Your task to perform on an android device: change the clock display to digital Image 0: 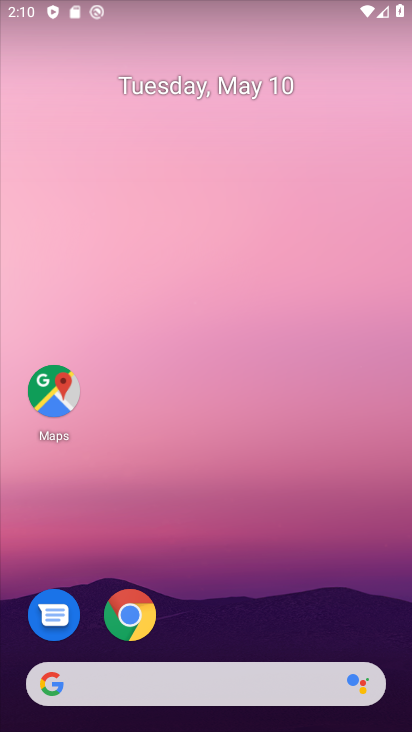
Step 0: click (357, 17)
Your task to perform on an android device: change the clock display to digital Image 1: 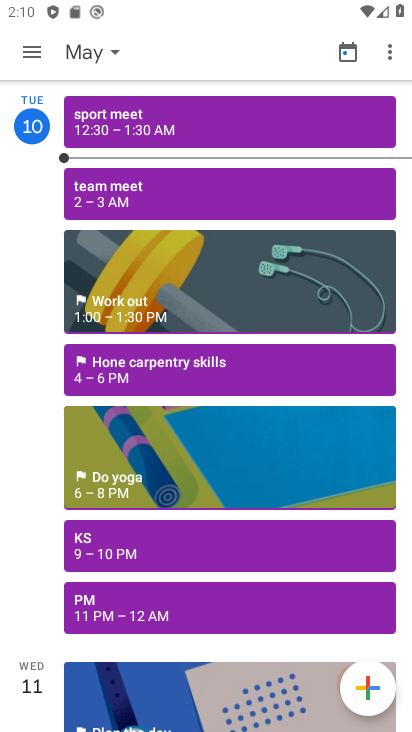
Step 1: press home button
Your task to perform on an android device: change the clock display to digital Image 2: 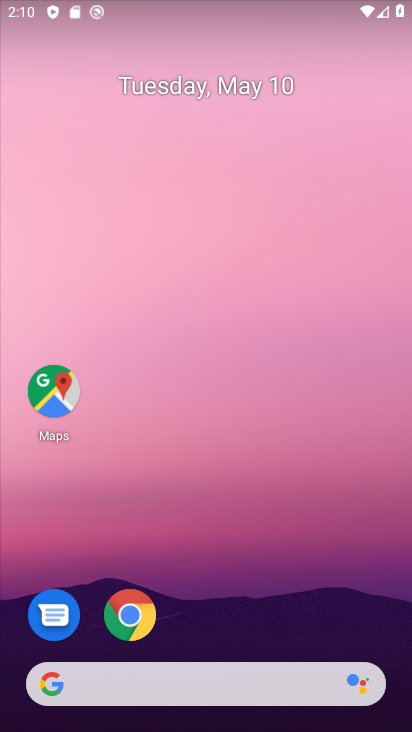
Step 2: drag from (293, 597) to (327, 6)
Your task to perform on an android device: change the clock display to digital Image 3: 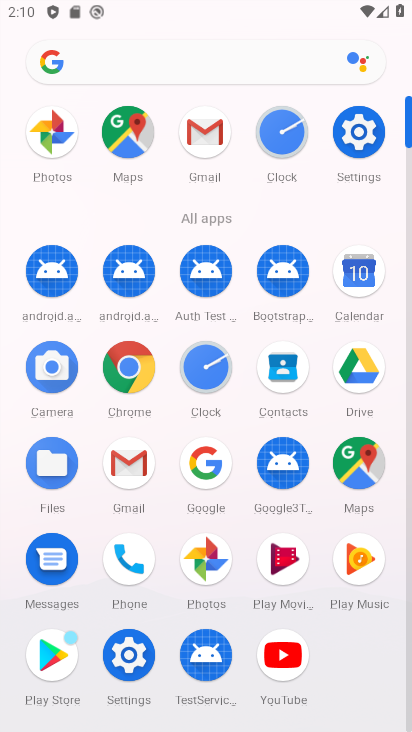
Step 3: click (204, 367)
Your task to perform on an android device: change the clock display to digital Image 4: 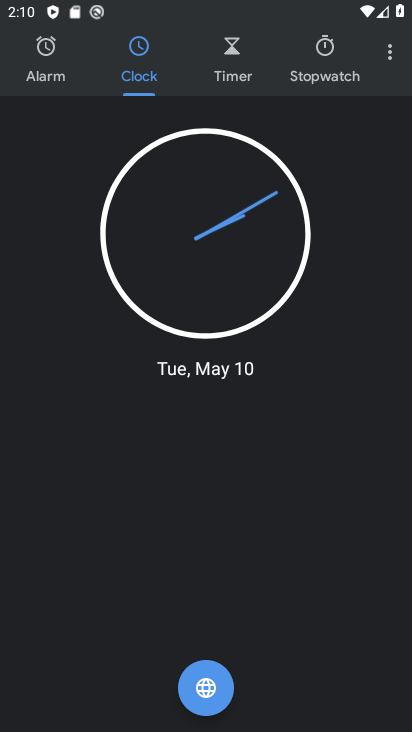
Step 4: click (395, 61)
Your task to perform on an android device: change the clock display to digital Image 5: 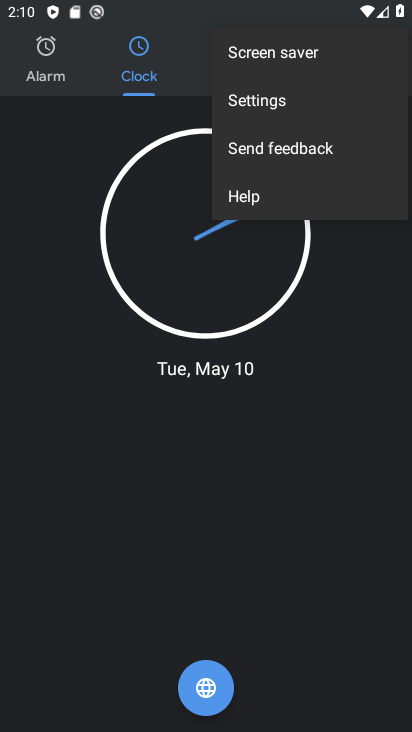
Step 5: click (379, 99)
Your task to perform on an android device: change the clock display to digital Image 6: 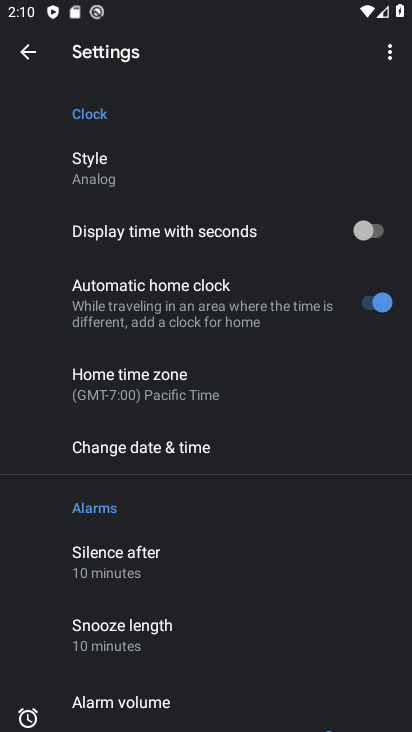
Step 6: click (75, 163)
Your task to perform on an android device: change the clock display to digital Image 7: 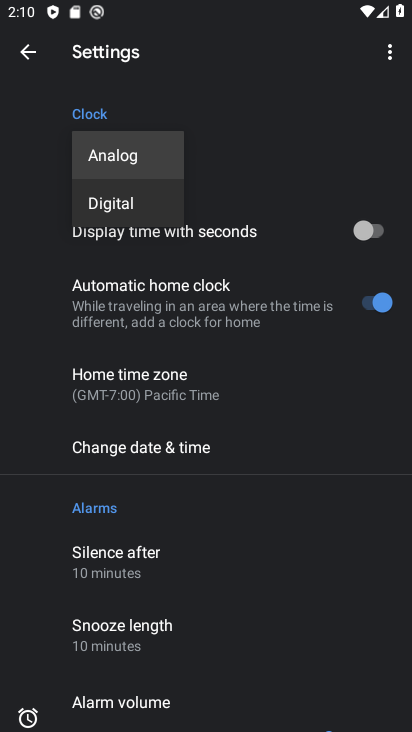
Step 7: click (135, 195)
Your task to perform on an android device: change the clock display to digital Image 8: 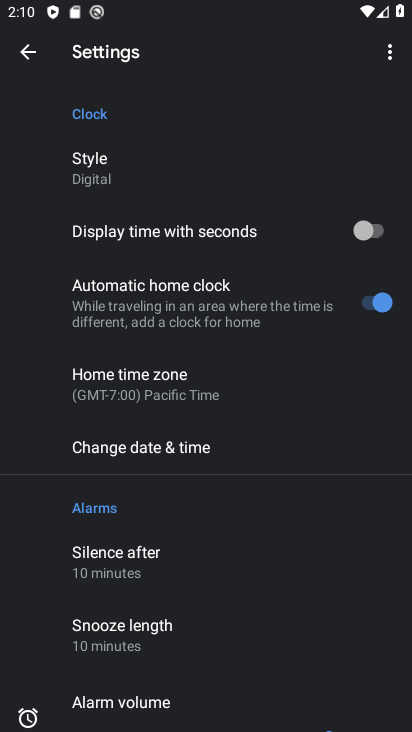
Step 8: task complete